Your task to perform on an android device: Open Yahoo.com Image 0: 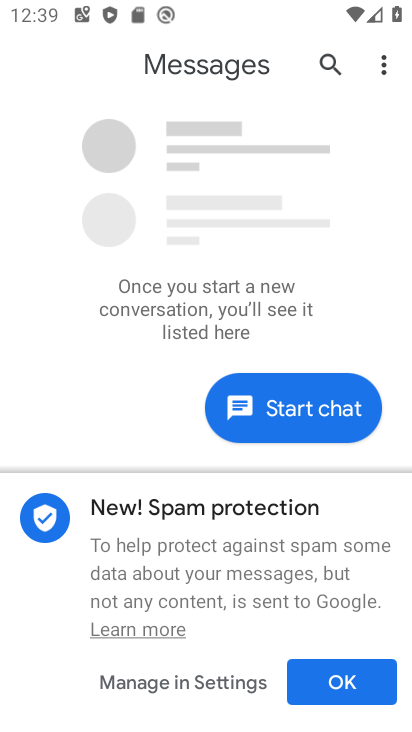
Step 0: press home button
Your task to perform on an android device: Open Yahoo.com Image 1: 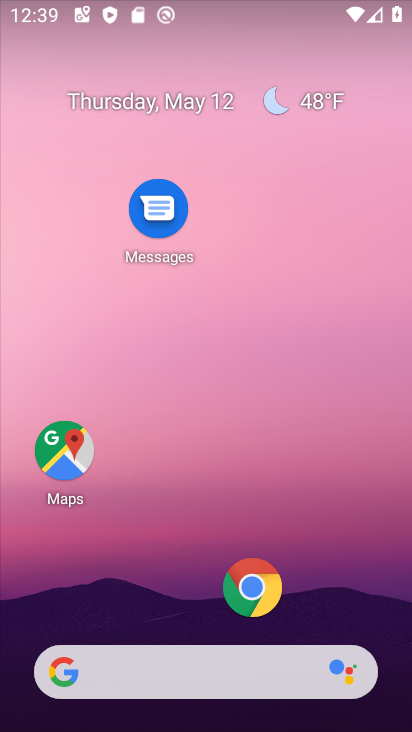
Step 1: click (269, 587)
Your task to perform on an android device: Open Yahoo.com Image 2: 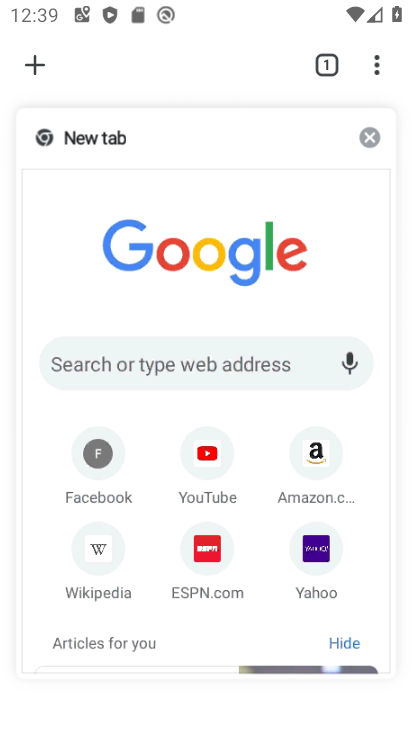
Step 2: click (298, 565)
Your task to perform on an android device: Open Yahoo.com Image 3: 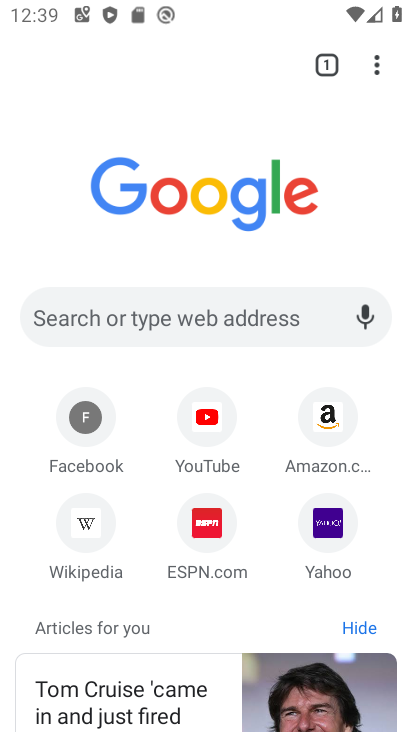
Step 3: click (326, 536)
Your task to perform on an android device: Open Yahoo.com Image 4: 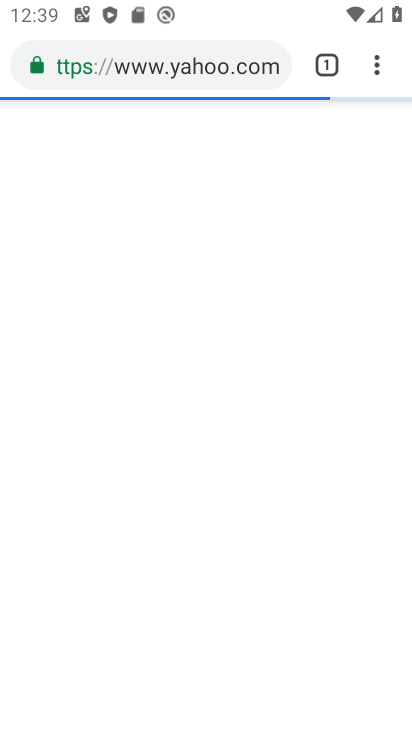
Step 4: task complete